Your task to perform on an android device: Add beats solo 3 to the cart on walmart.com, then select checkout. Image 0: 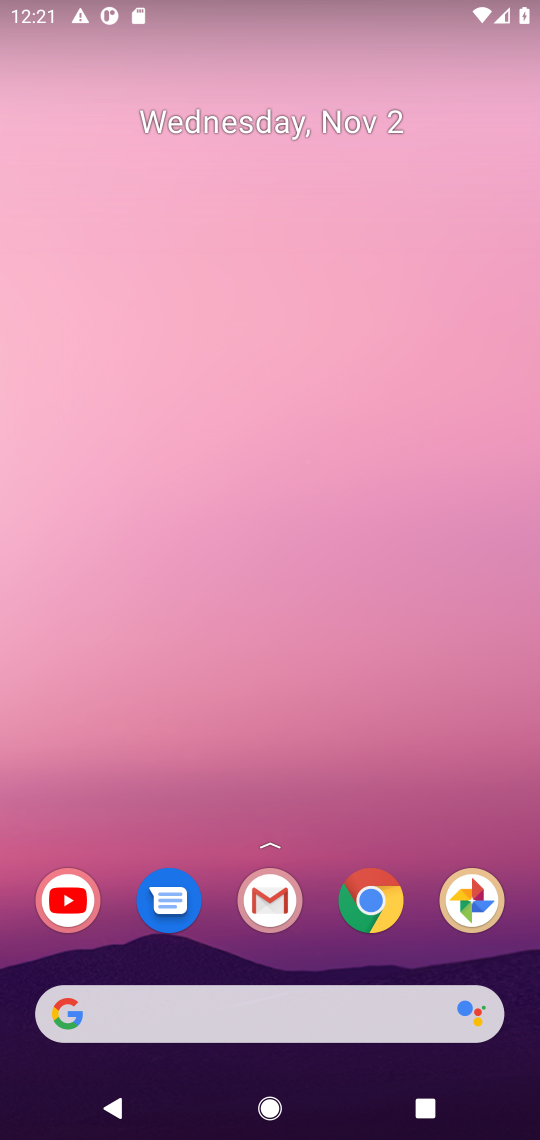
Step 0: click (354, 883)
Your task to perform on an android device: Add beats solo 3 to the cart on walmart.com, then select checkout. Image 1: 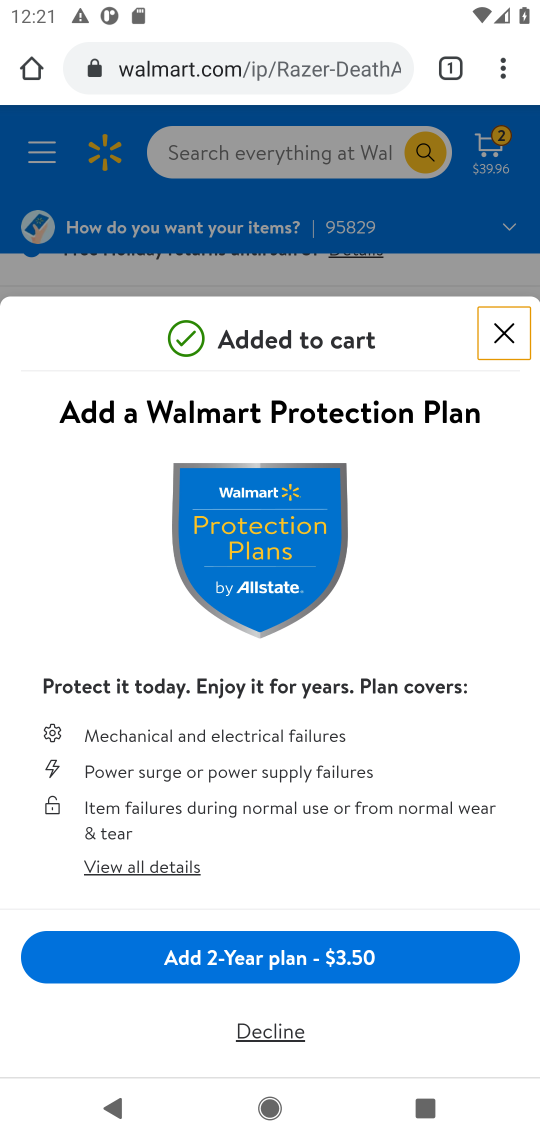
Step 1: click (497, 305)
Your task to perform on an android device: Add beats solo 3 to the cart on walmart.com, then select checkout. Image 2: 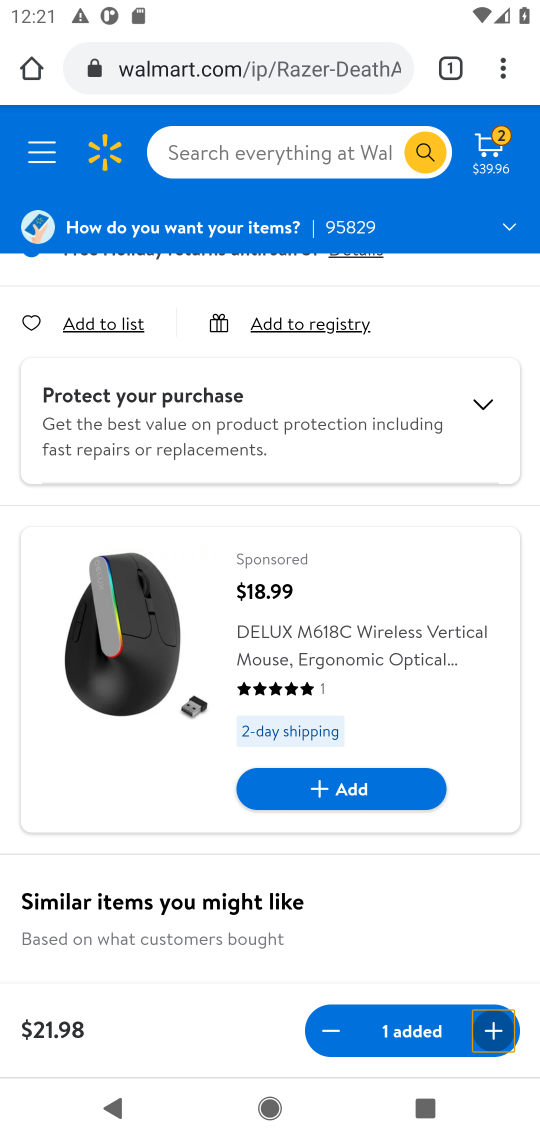
Step 2: click (288, 144)
Your task to perform on an android device: Add beats solo 3 to the cart on walmart.com, then select checkout. Image 3: 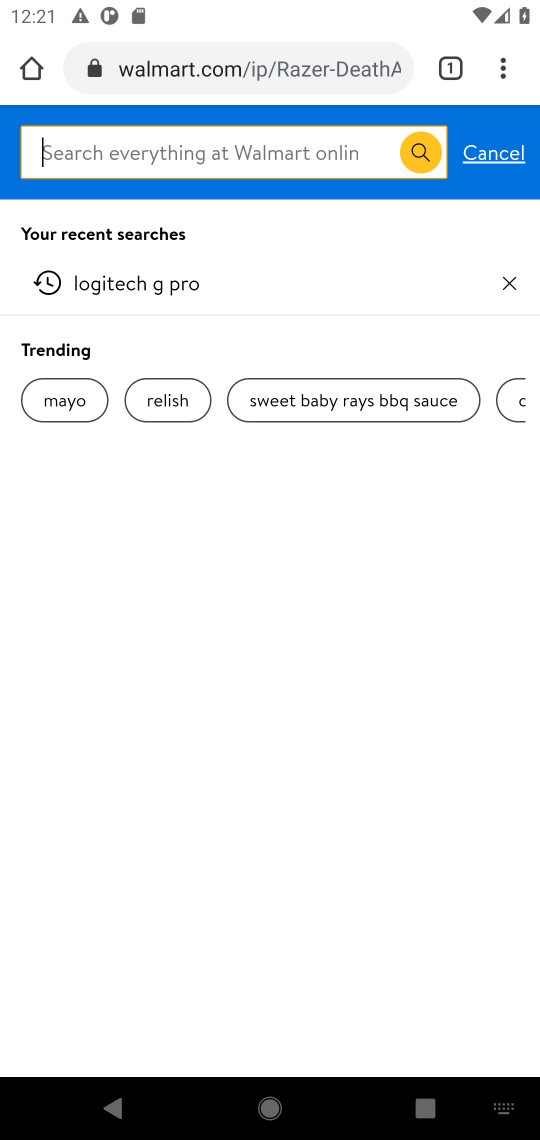
Step 3: type "beats solo 3 "
Your task to perform on an android device: Add beats solo 3 to the cart on walmart.com, then select checkout. Image 4: 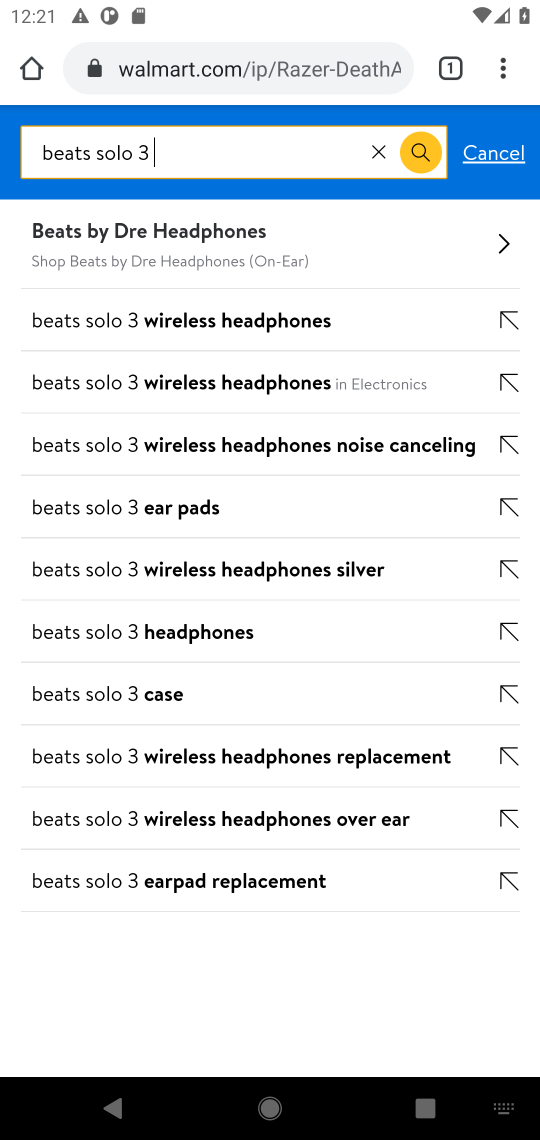
Step 4: click (416, 158)
Your task to perform on an android device: Add beats solo 3 to the cart on walmart.com, then select checkout. Image 5: 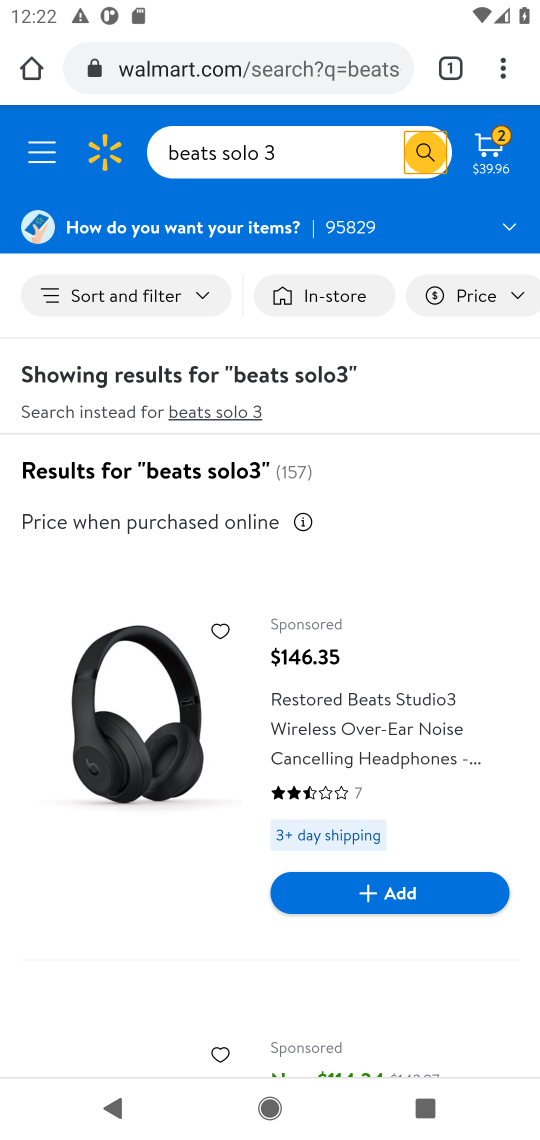
Step 5: drag from (451, 786) to (437, 721)
Your task to perform on an android device: Add beats solo 3 to the cart on walmart.com, then select checkout. Image 6: 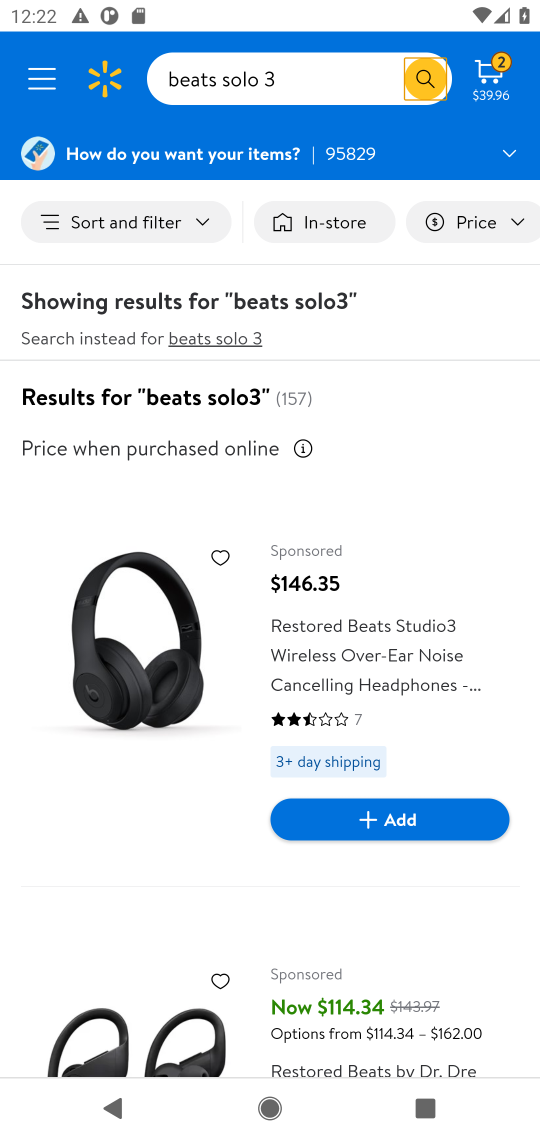
Step 6: click (395, 739)
Your task to perform on an android device: Add beats solo 3 to the cart on walmart.com, then select checkout. Image 7: 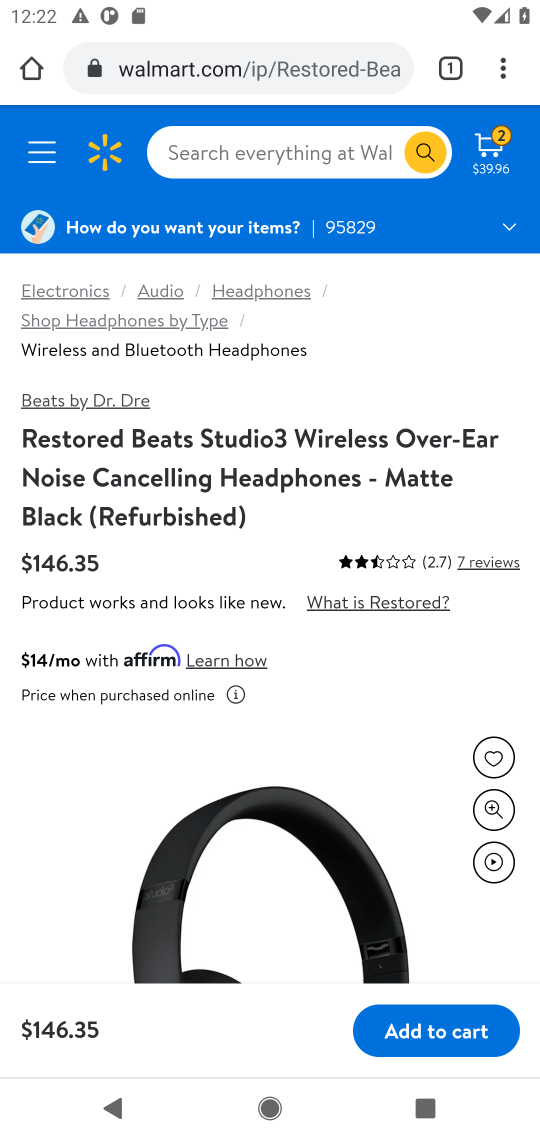
Step 7: press back button
Your task to perform on an android device: Add beats solo 3 to the cart on walmart.com, then select checkout. Image 8: 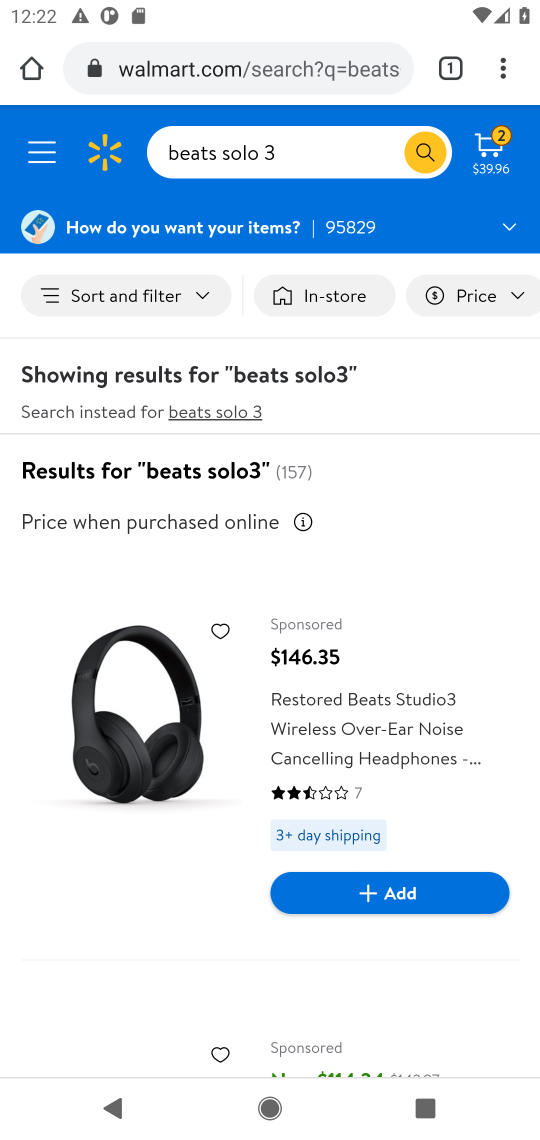
Step 8: drag from (270, 980) to (408, 524)
Your task to perform on an android device: Add beats solo 3 to the cart on walmart.com, then select checkout. Image 9: 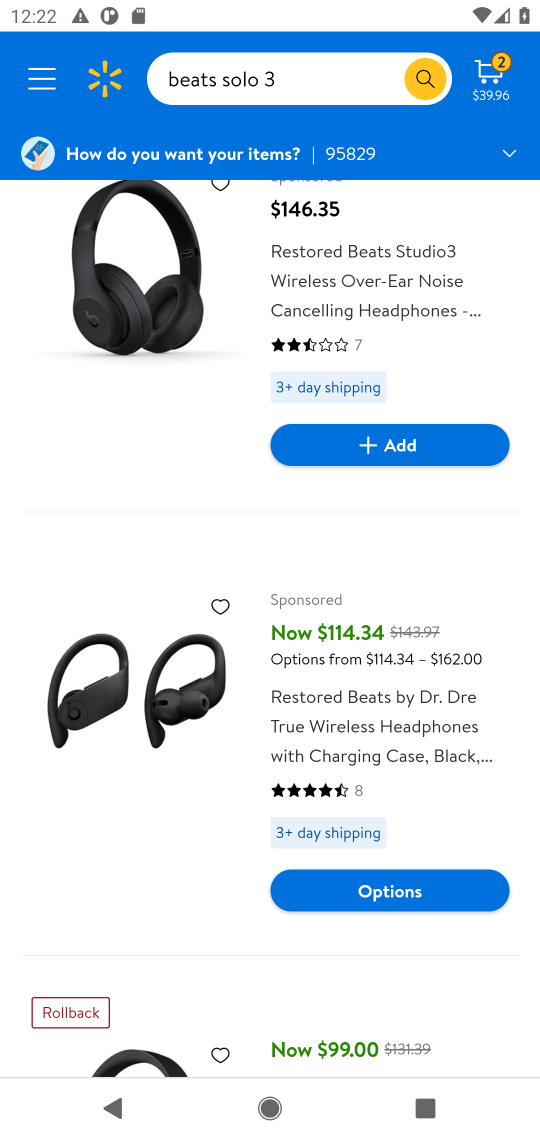
Step 9: drag from (195, 992) to (284, 540)
Your task to perform on an android device: Add beats solo 3 to the cart on walmart.com, then select checkout. Image 10: 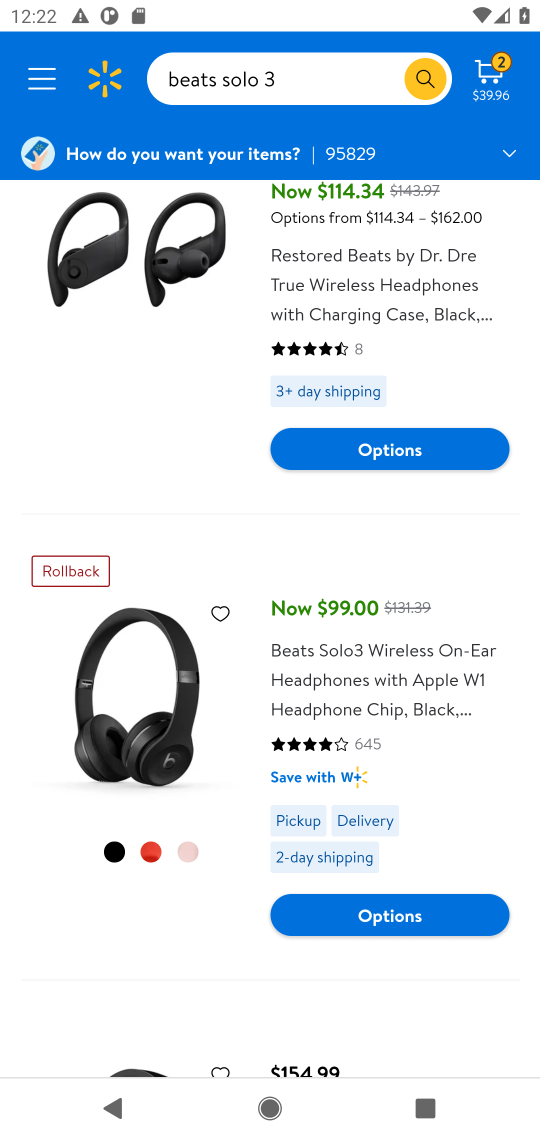
Step 10: click (416, 910)
Your task to perform on an android device: Add beats solo 3 to the cart on walmart.com, then select checkout. Image 11: 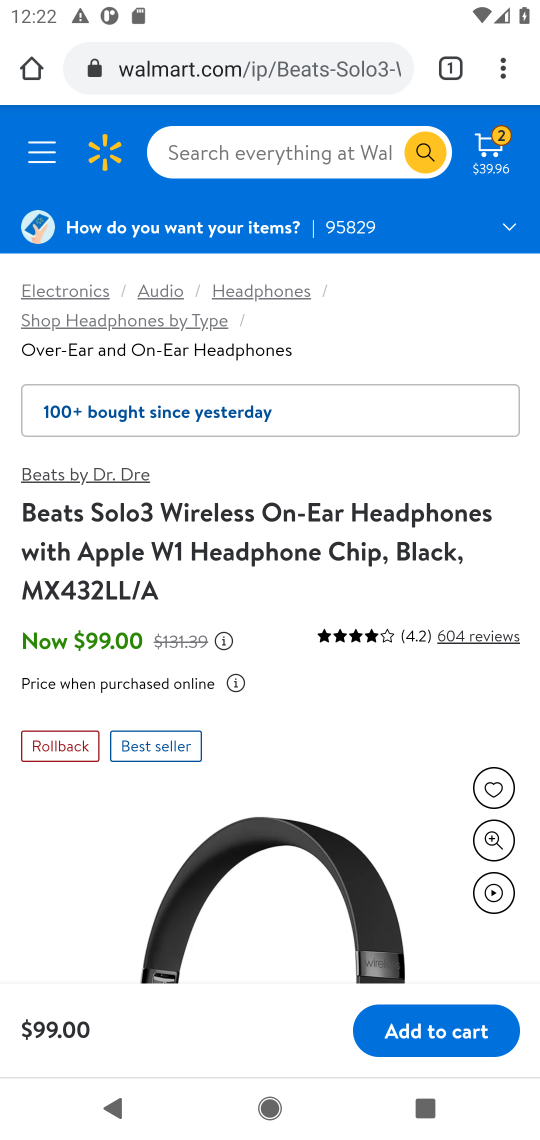
Step 11: drag from (205, 897) to (306, 405)
Your task to perform on an android device: Add beats solo 3 to the cart on walmart.com, then select checkout. Image 12: 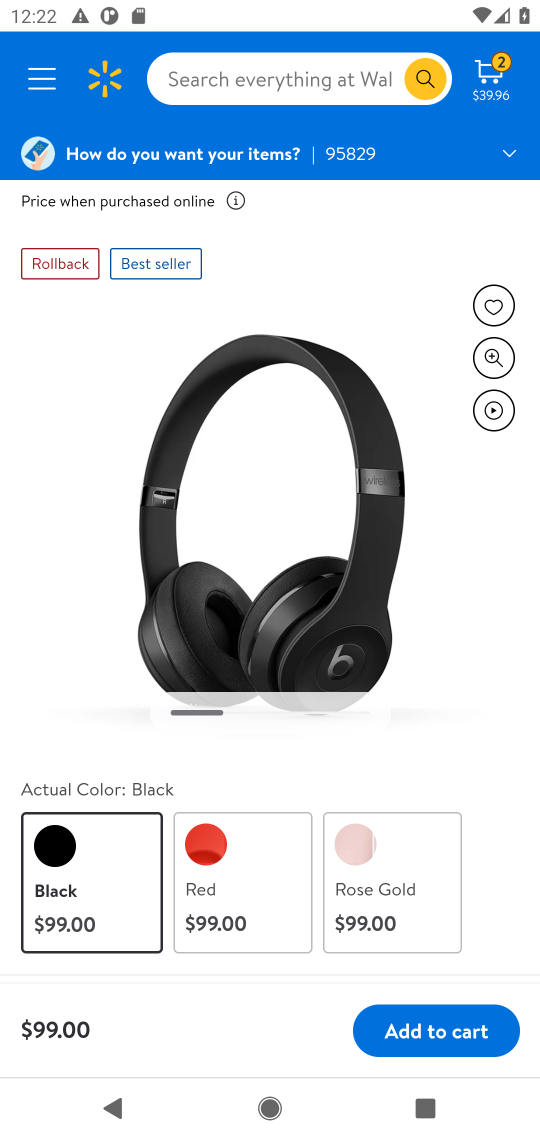
Step 12: click (381, 908)
Your task to perform on an android device: Add beats solo 3 to the cart on walmart.com, then select checkout. Image 13: 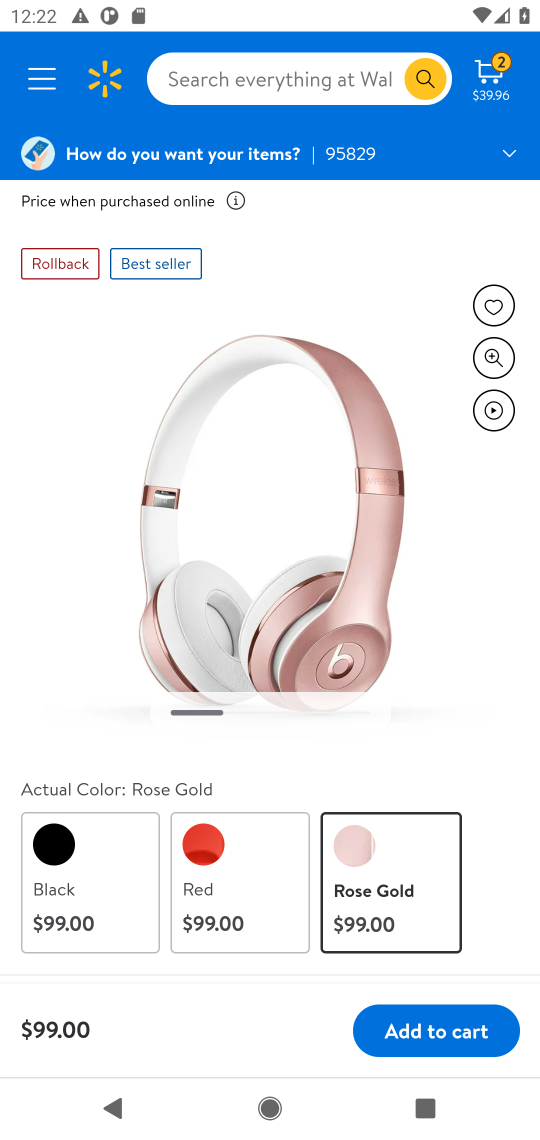
Step 13: click (434, 1024)
Your task to perform on an android device: Add beats solo 3 to the cart on walmart.com, then select checkout. Image 14: 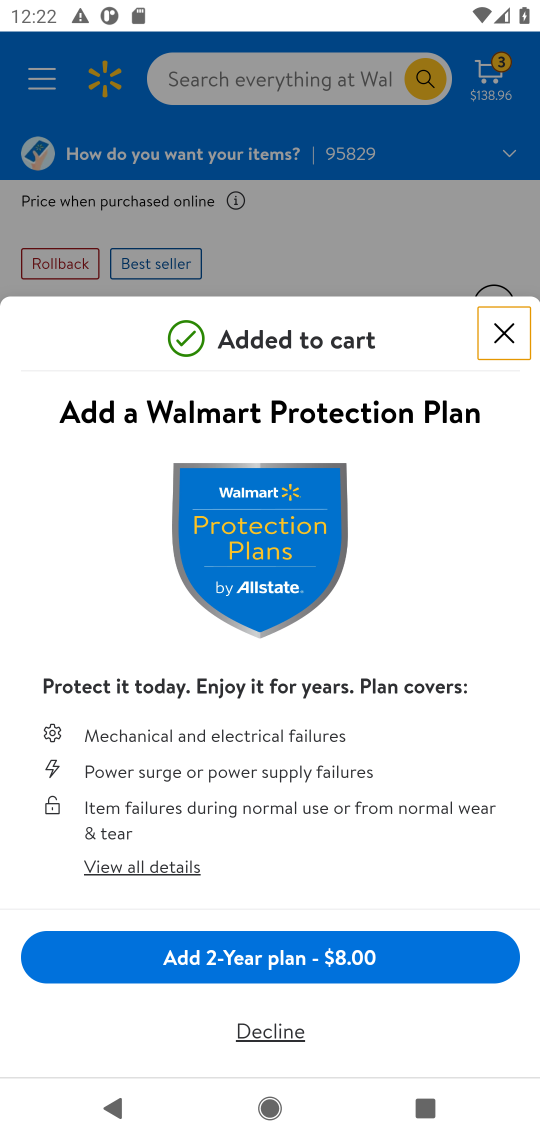
Step 14: click (507, 320)
Your task to perform on an android device: Add beats solo 3 to the cart on walmart.com, then select checkout. Image 15: 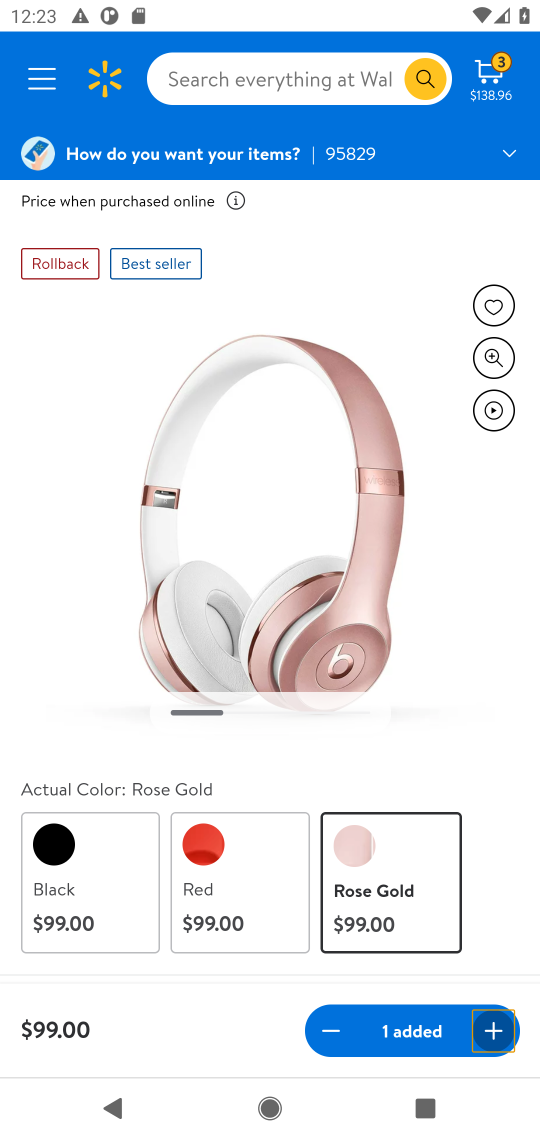
Step 15: click (504, 65)
Your task to perform on an android device: Add beats solo 3 to the cart on walmart.com, then select checkout. Image 16: 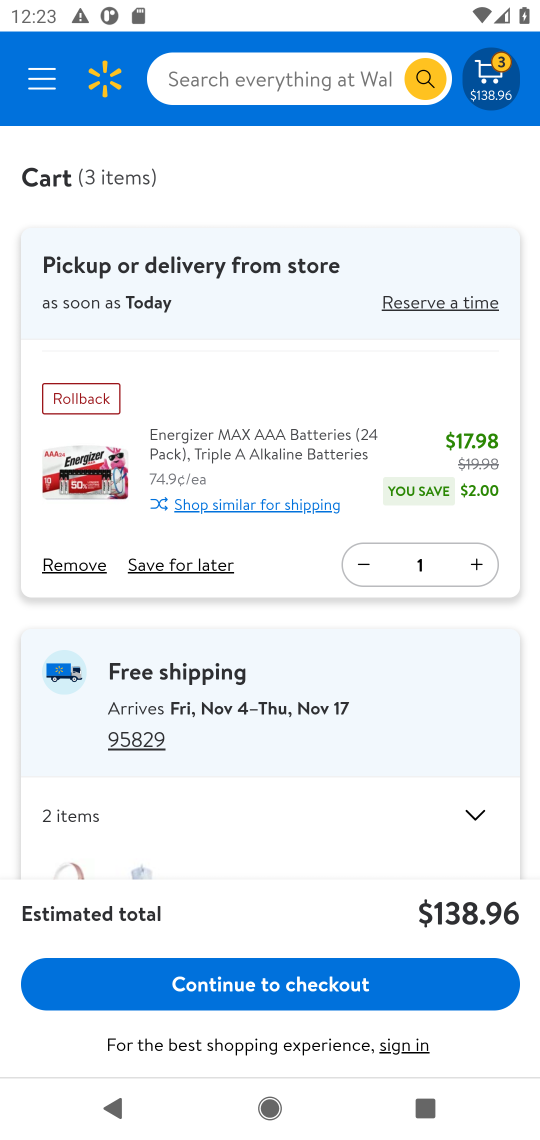
Step 16: click (152, 980)
Your task to perform on an android device: Add beats solo 3 to the cart on walmart.com, then select checkout. Image 17: 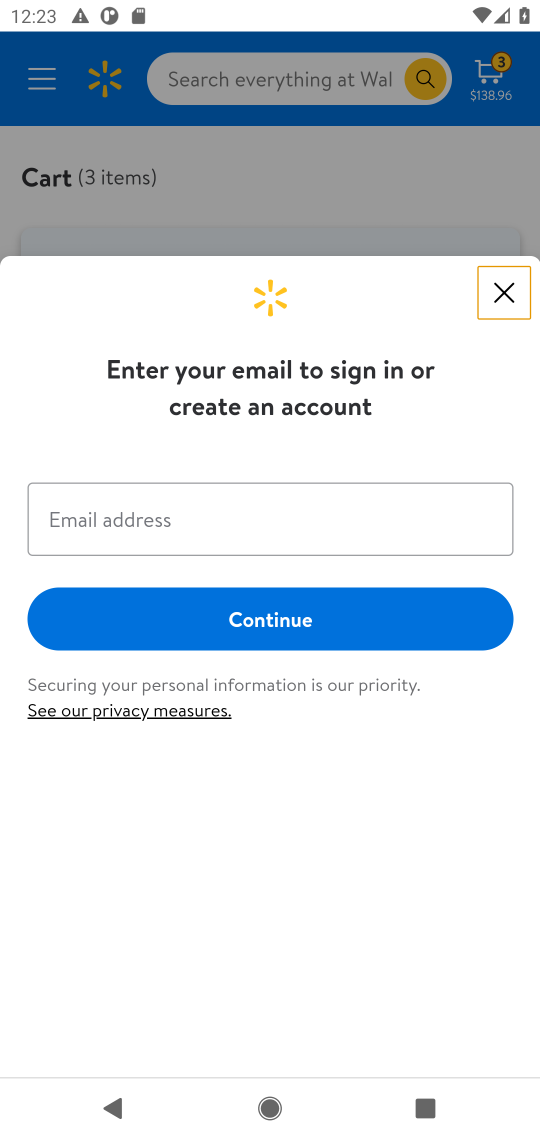
Step 17: task complete